Your task to perform on an android device: Open Android settings Image 0: 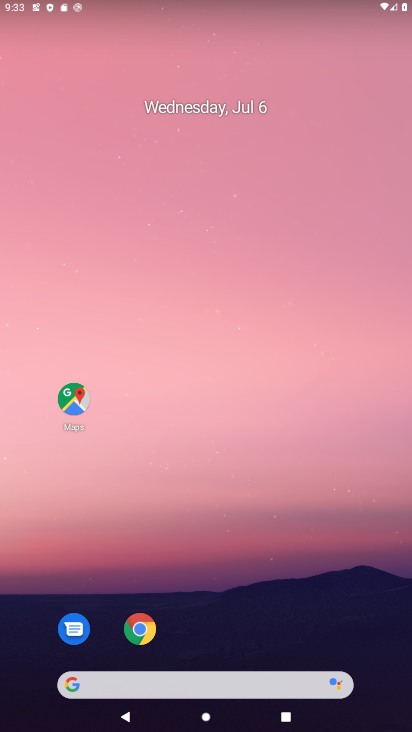
Step 0: drag from (234, 613) to (213, 56)
Your task to perform on an android device: Open Android settings Image 1: 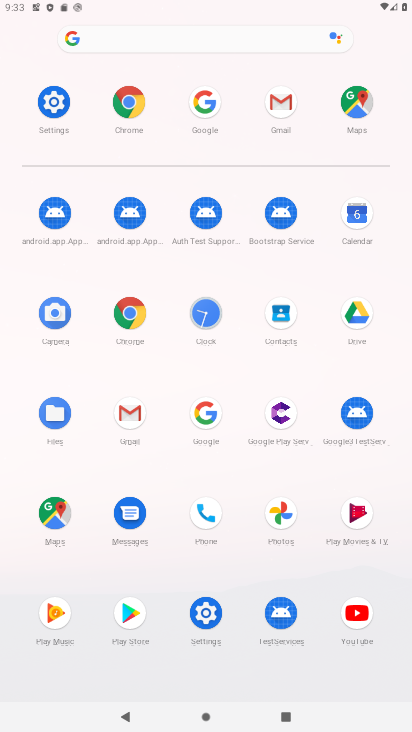
Step 1: click (51, 97)
Your task to perform on an android device: Open Android settings Image 2: 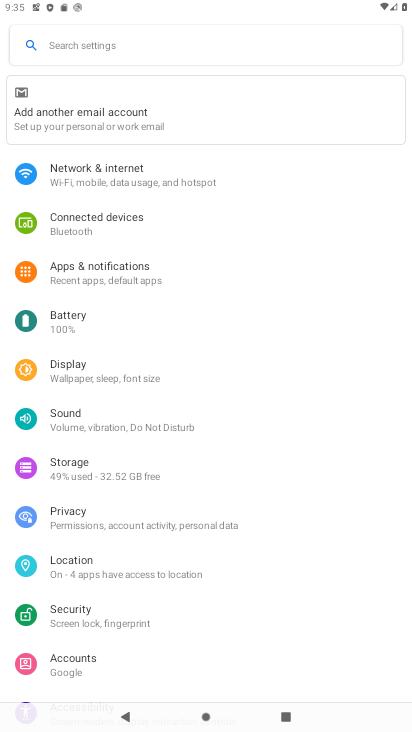
Step 2: task complete